Your task to perform on an android device: change your default location settings in chrome Image 0: 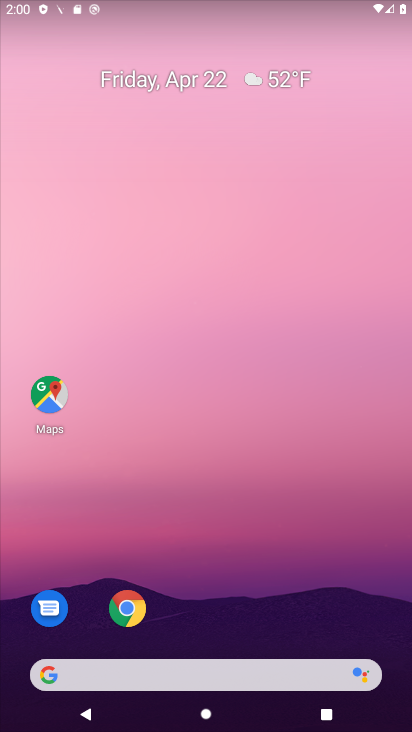
Step 0: click (52, 399)
Your task to perform on an android device: change your default location settings in chrome Image 1: 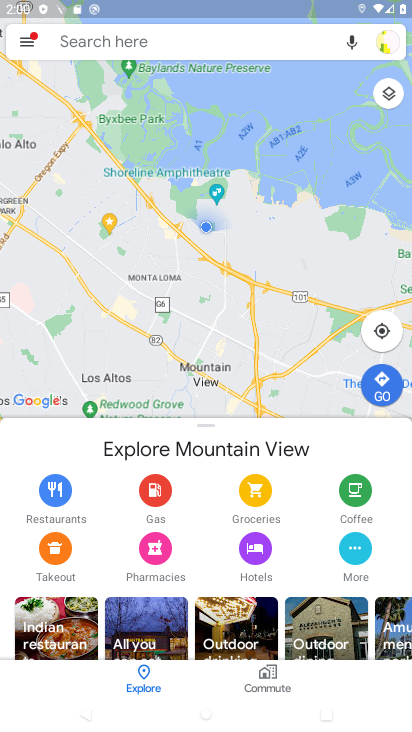
Step 1: press home button
Your task to perform on an android device: change your default location settings in chrome Image 2: 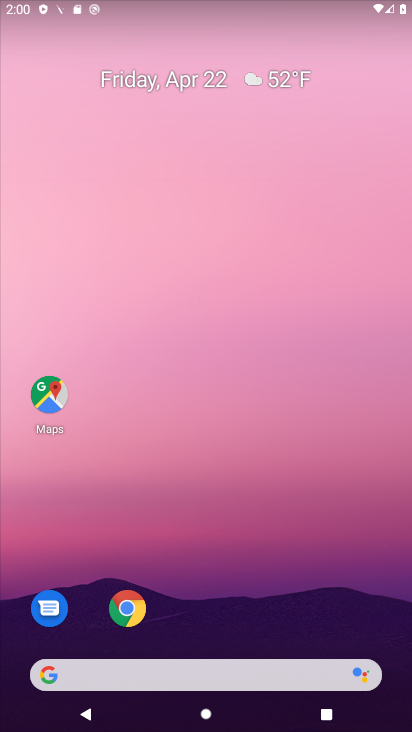
Step 2: click (130, 606)
Your task to perform on an android device: change your default location settings in chrome Image 3: 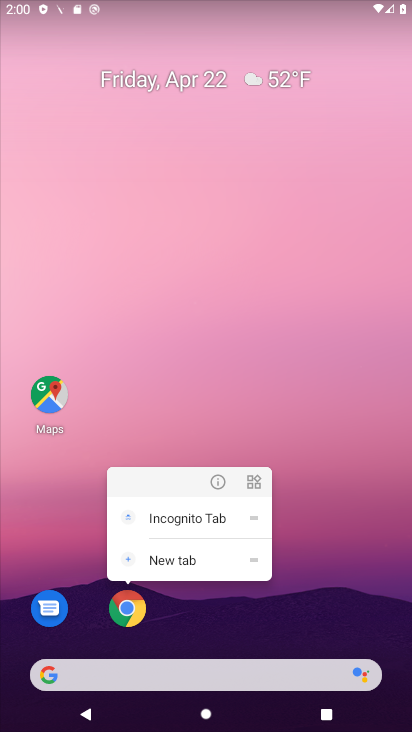
Step 3: click (133, 605)
Your task to perform on an android device: change your default location settings in chrome Image 4: 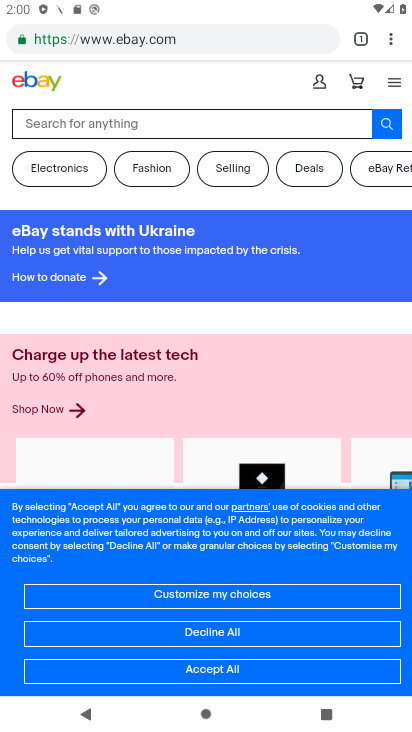
Step 4: click (393, 37)
Your task to perform on an android device: change your default location settings in chrome Image 5: 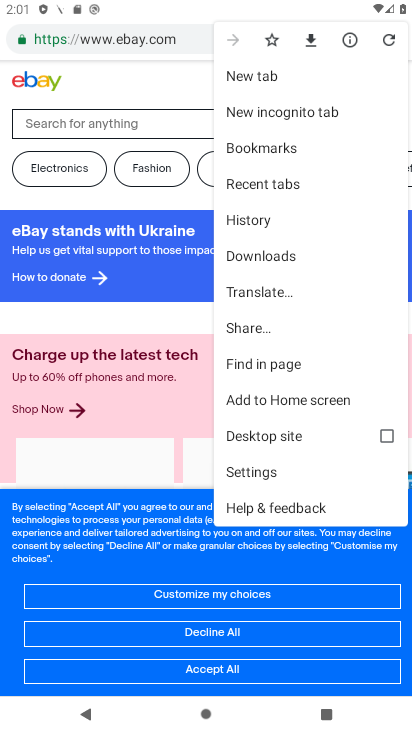
Step 5: click (261, 470)
Your task to perform on an android device: change your default location settings in chrome Image 6: 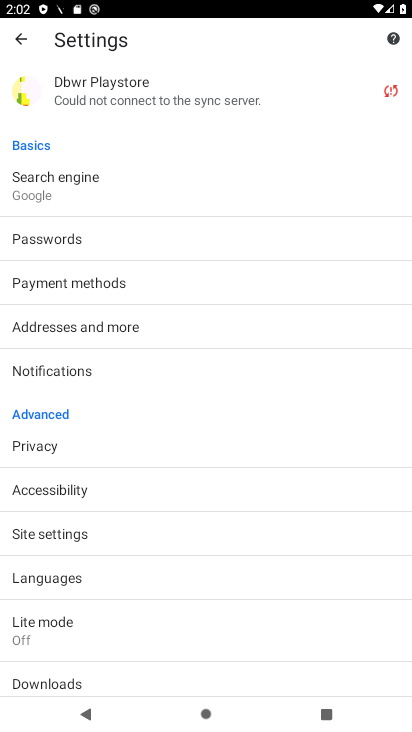
Step 6: click (73, 531)
Your task to perform on an android device: change your default location settings in chrome Image 7: 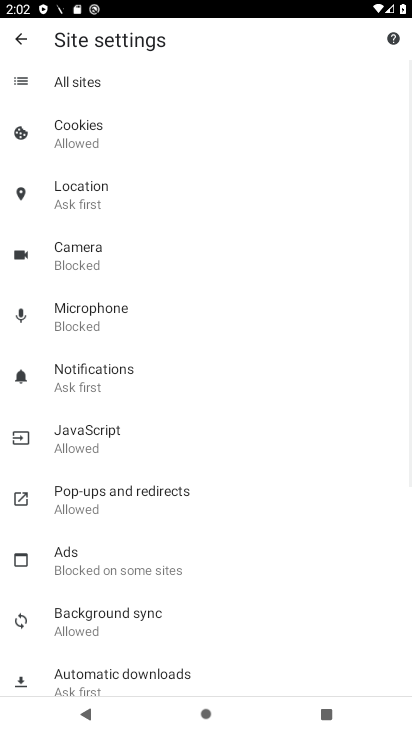
Step 7: click (100, 200)
Your task to perform on an android device: change your default location settings in chrome Image 8: 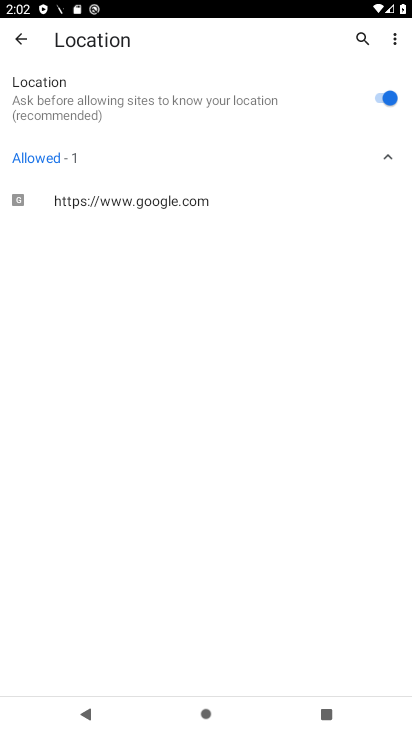
Step 8: click (381, 96)
Your task to perform on an android device: change your default location settings in chrome Image 9: 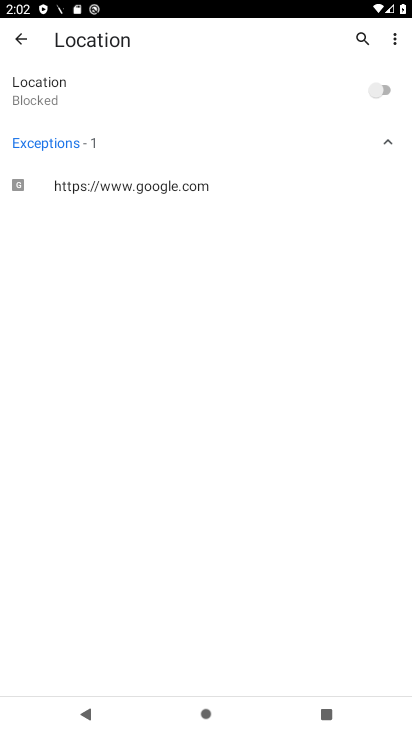
Step 9: task complete